Your task to perform on an android device: Open my contact list Image 0: 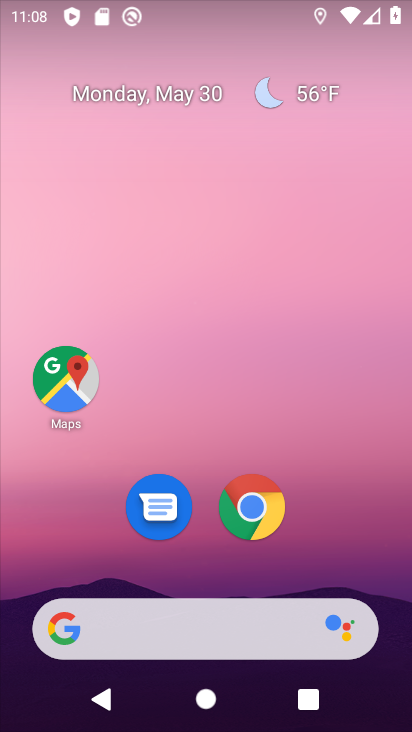
Step 0: drag from (168, 718) to (173, 18)
Your task to perform on an android device: Open my contact list Image 1: 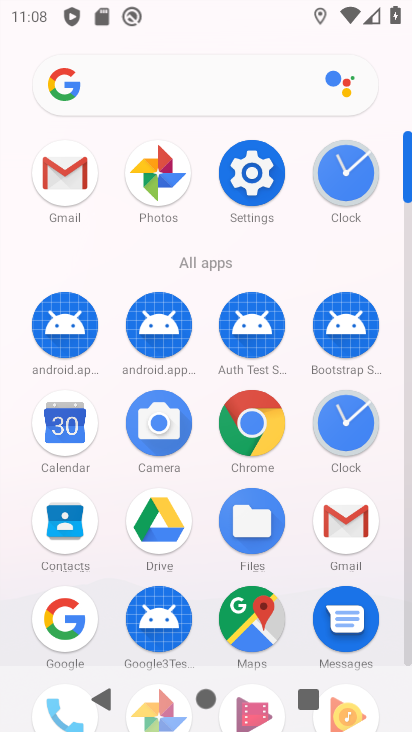
Step 1: click (53, 526)
Your task to perform on an android device: Open my contact list Image 2: 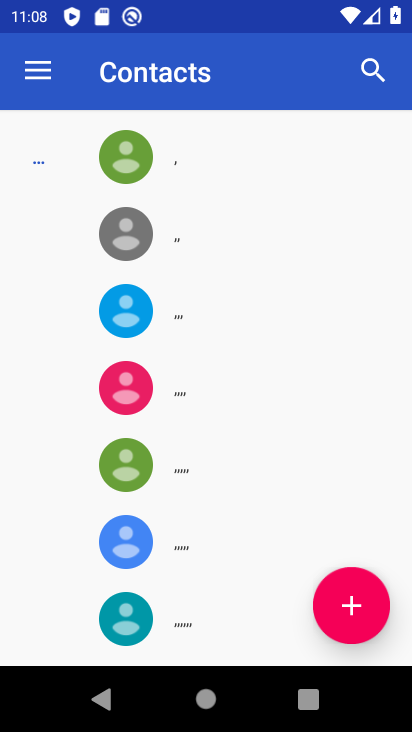
Step 2: task complete